Your task to perform on an android device: Search for vegetarian restaurants on Maps Image 0: 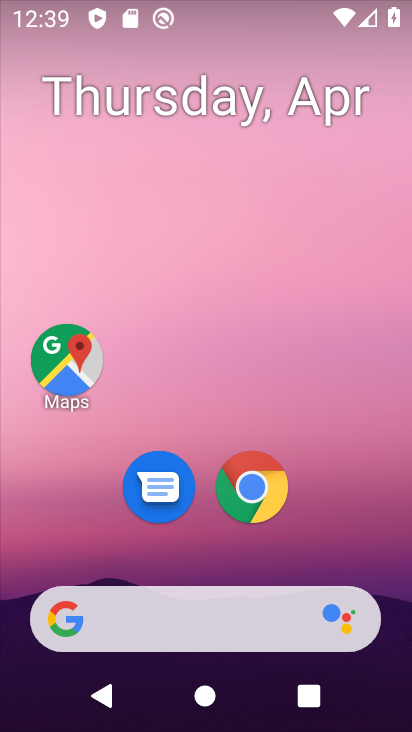
Step 0: drag from (321, 552) to (350, 76)
Your task to perform on an android device: Search for vegetarian restaurants on Maps Image 1: 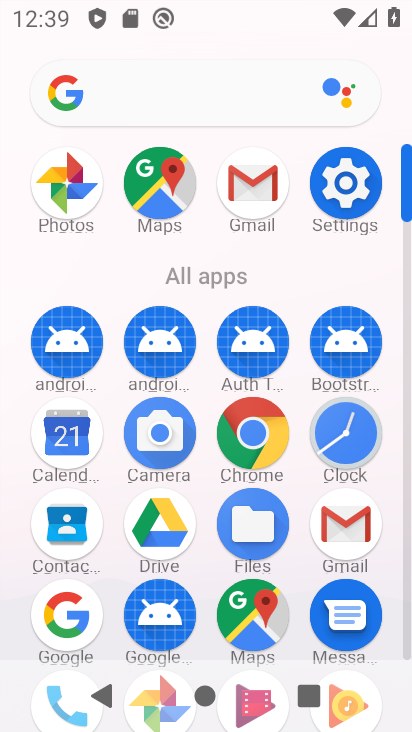
Step 1: click (150, 189)
Your task to perform on an android device: Search for vegetarian restaurants on Maps Image 2: 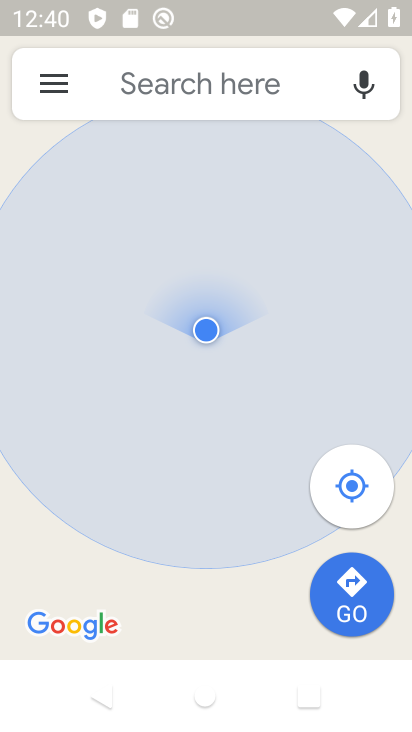
Step 2: click (111, 80)
Your task to perform on an android device: Search for vegetarian restaurants on Maps Image 3: 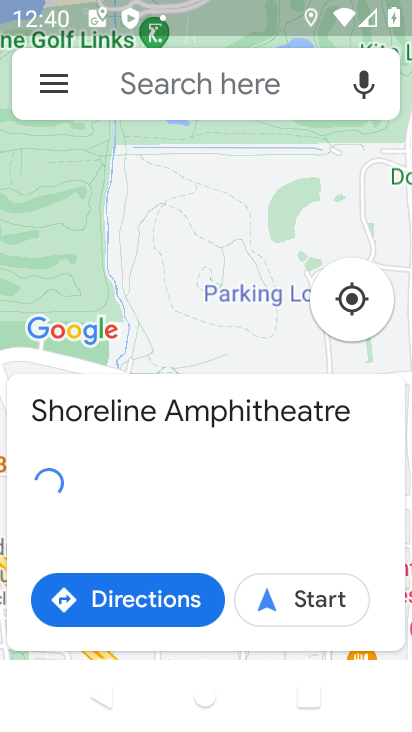
Step 3: click (174, 86)
Your task to perform on an android device: Search for vegetarian restaurants on Maps Image 4: 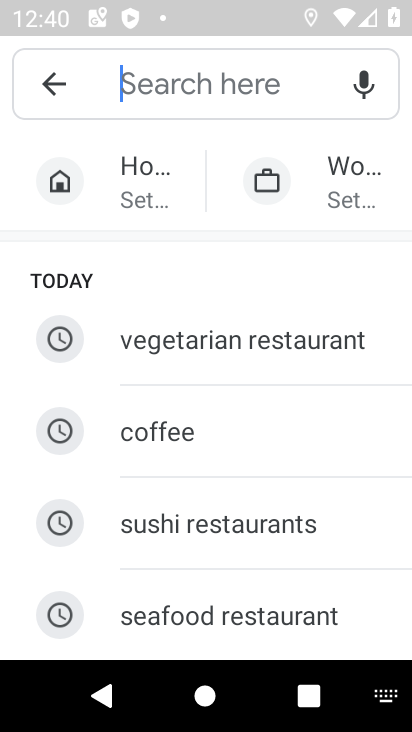
Step 4: type "vegetarian restaurants"
Your task to perform on an android device: Search for vegetarian restaurants on Maps Image 5: 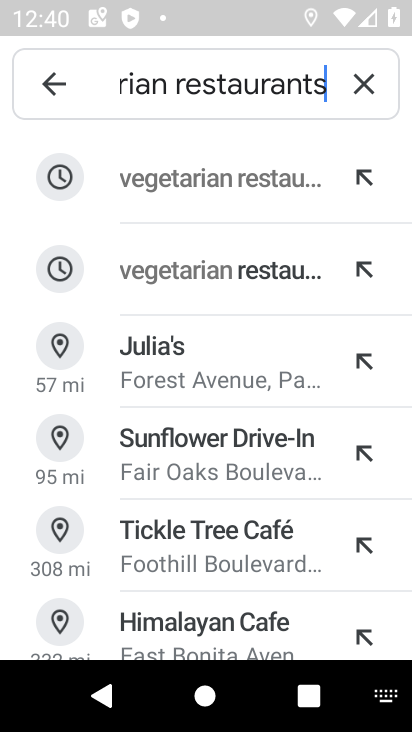
Step 5: click (305, 173)
Your task to perform on an android device: Search for vegetarian restaurants on Maps Image 6: 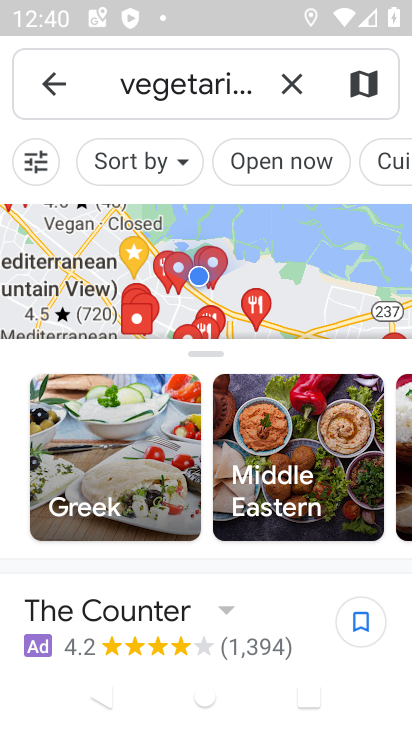
Step 6: task complete